Your task to perform on an android device: Open Google Chrome Image 0: 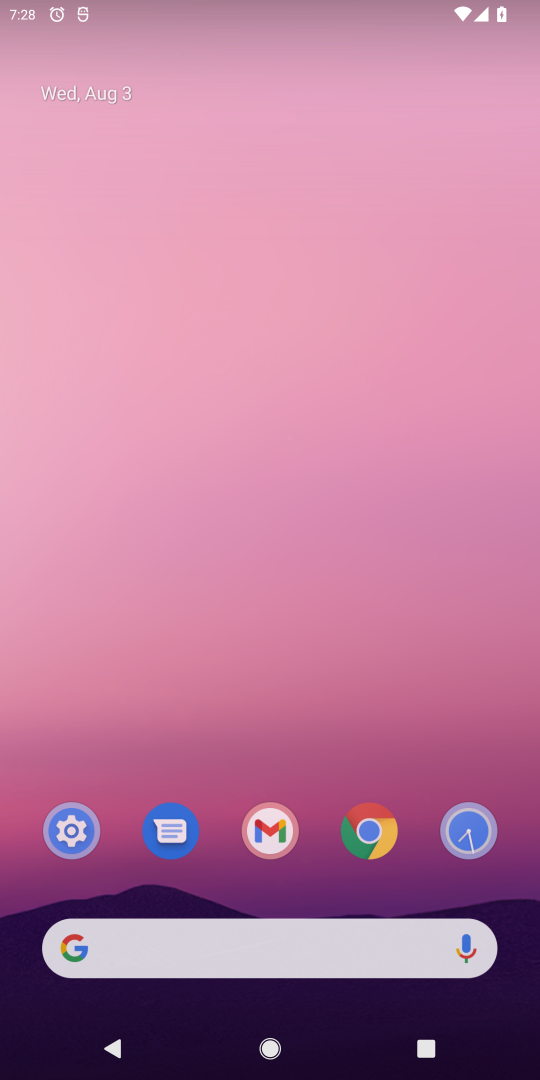
Step 0: press home button
Your task to perform on an android device: Open Google Chrome Image 1: 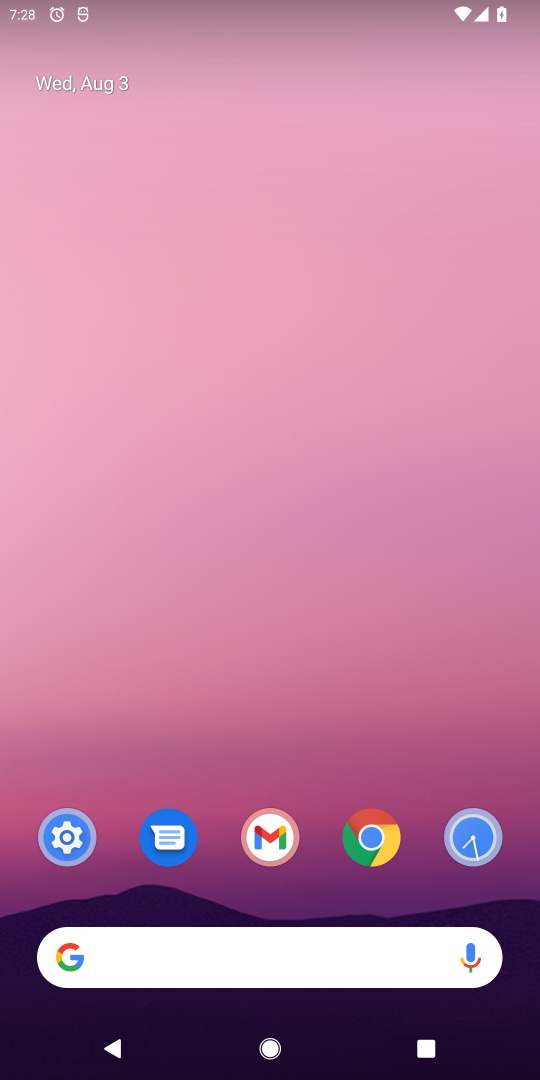
Step 1: click (366, 847)
Your task to perform on an android device: Open Google Chrome Image 2: 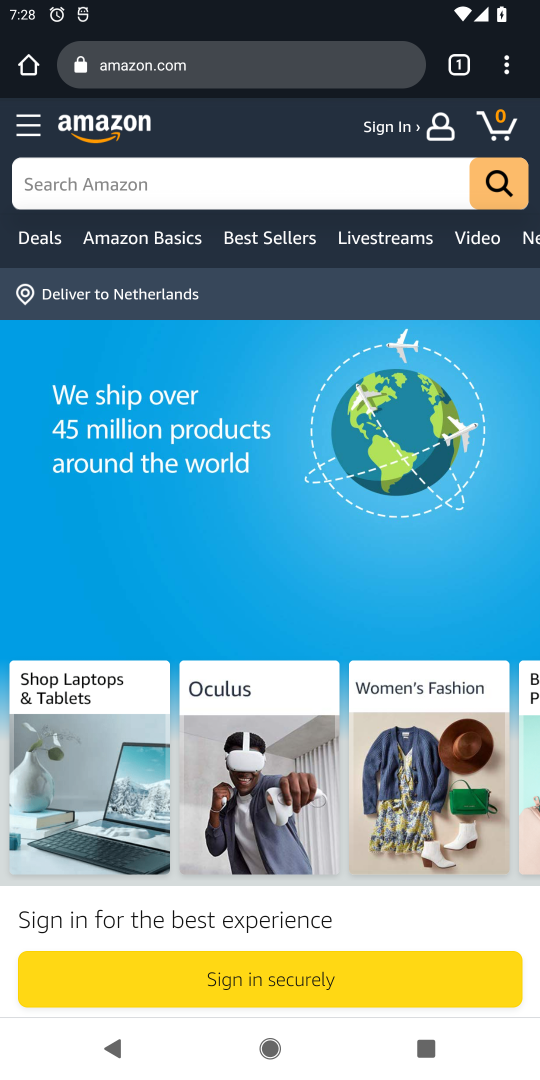
Step 2: click (457, 65)
Your task to perform on an android device: Open Google Chrome Image 3: 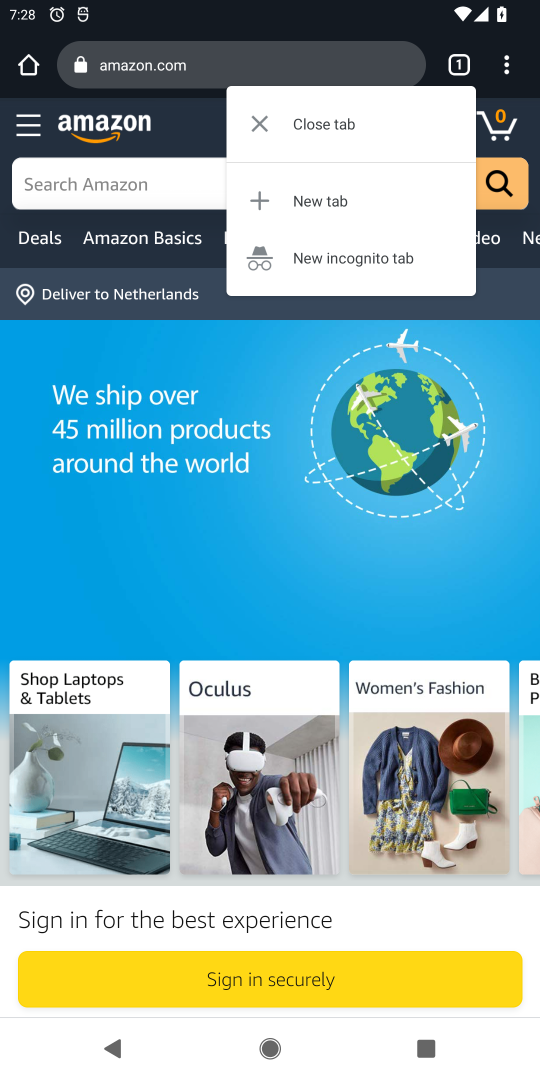
Step 3: click (304, 205)
Your task to perform on an android device: Open Google Chrome Image 4: 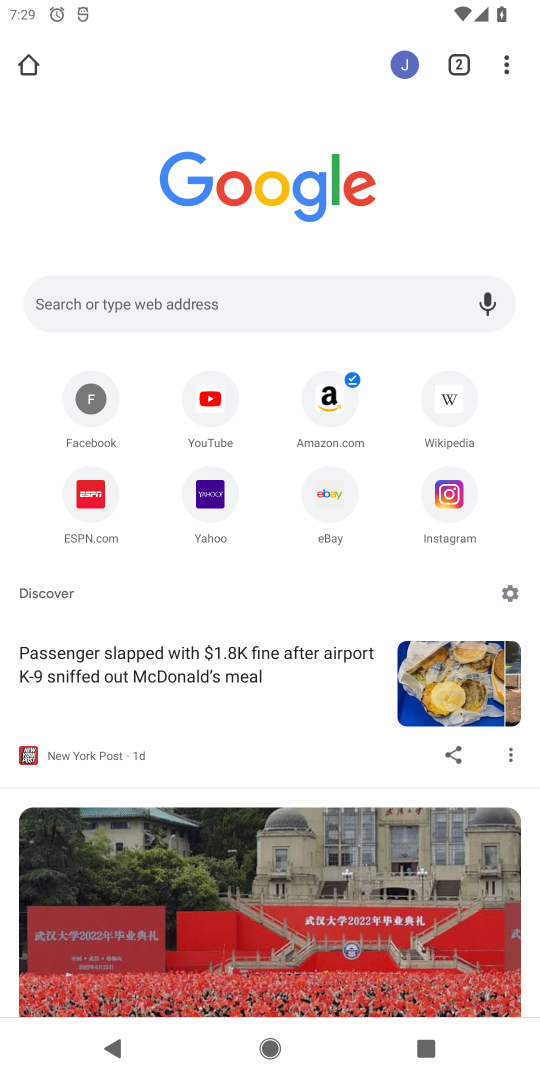
Step 4: task complete